Your task to perform on an android device: empty trash in google photos Image 0: 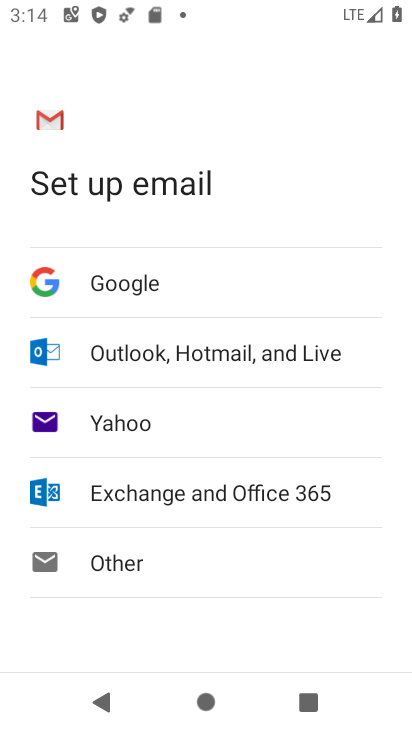
Step 0: press home button
Your task to perform on an android device: empty trash in google photos Image 1: 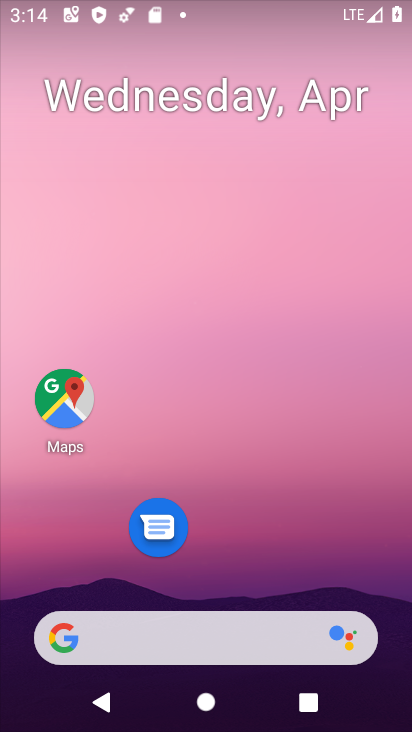
Step 1: drag from (231, 359) to (244, 23)
Your task to perform on an android device: empty trash in google photos Image 2: 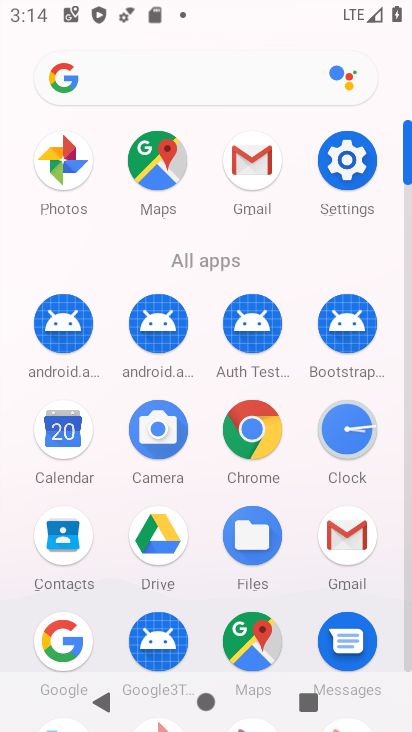
Step 2: click (59, 167)
Your task to perform on an android device: empty trash in google photos Image 3: 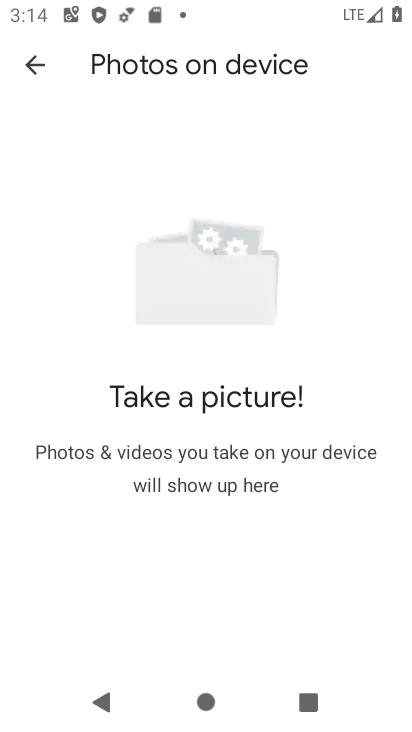
Step 3: click (37, 66)
Your task to perform on an android device: empty trash in google photos Image 4: 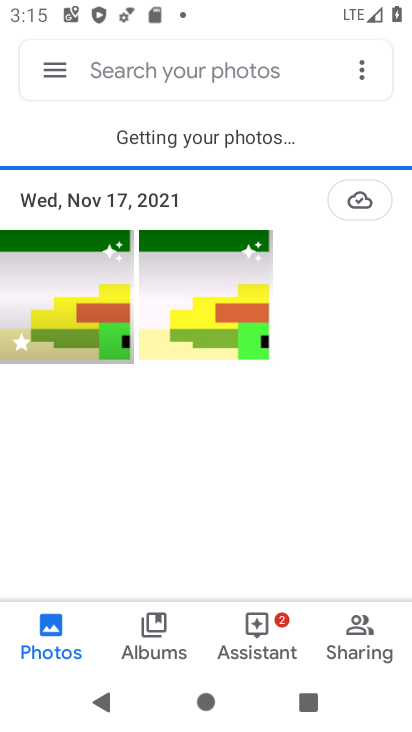
Step 4: click (37, 66)
Your task to perform on an android device: empty trash in google photos Image 5: 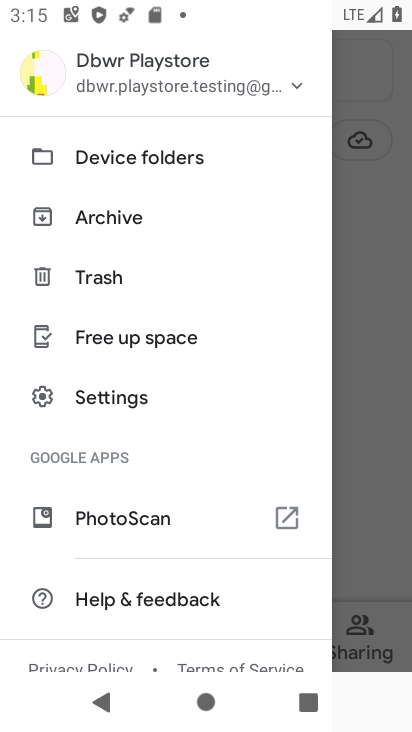
Step 5: click (96, 273)
Your task to perform on an android device: empty trash in google photos Image 6: 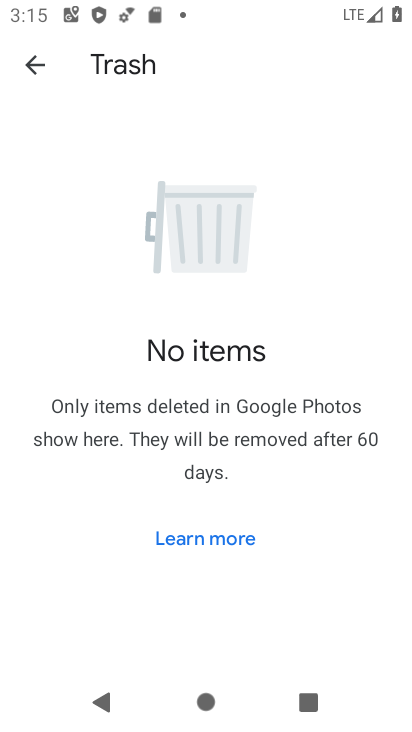
Step 6: task complete